Your task to perform on an android device: Go to network settings Image 0: 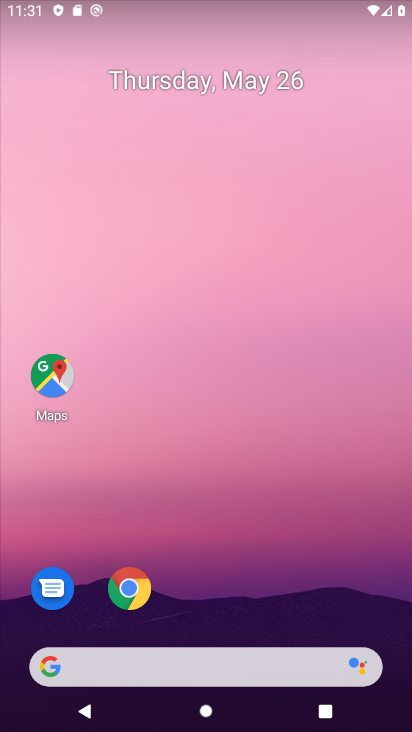
Step 0: drag from (197, 638) to (142, 14)
Your task to perform on an android device: Go to network settings Image 1: 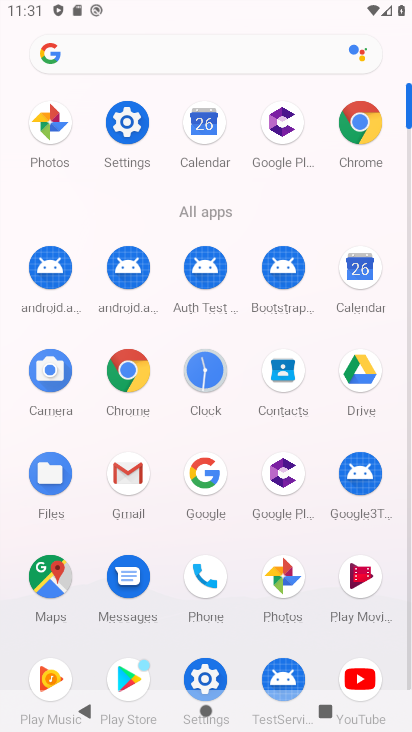
Step 1: click (212, 663)
Your task to perform on an android device: Go to network settings Image 2: 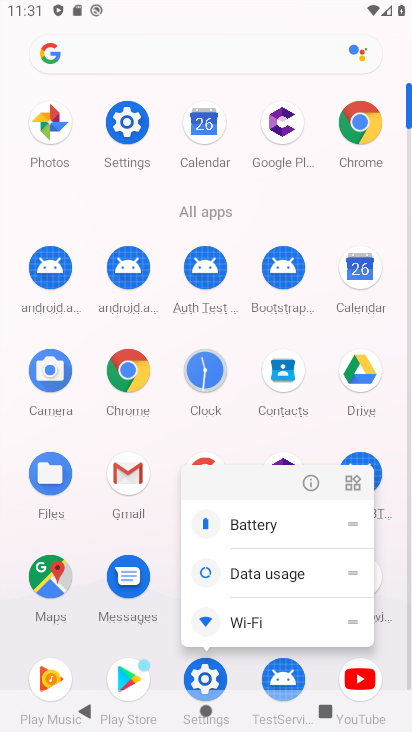
Step 2: click (206, 676)
Your task to perform on an android device: Go to network settings Image 3: 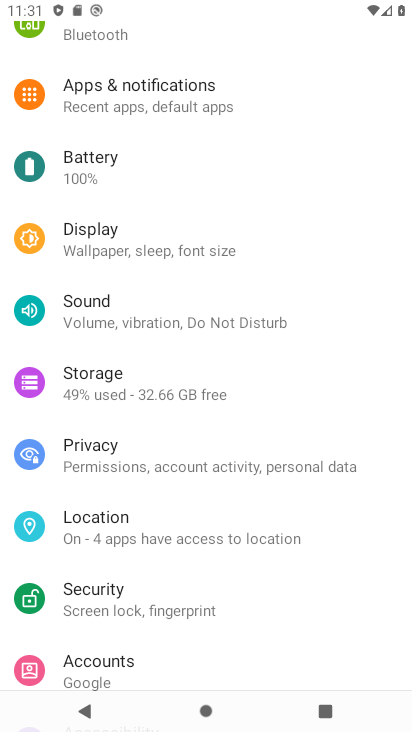
Step 3: drag from (114, 111) to (131, 720)
Your task to perform on an android device: Go to network settings Image 4: 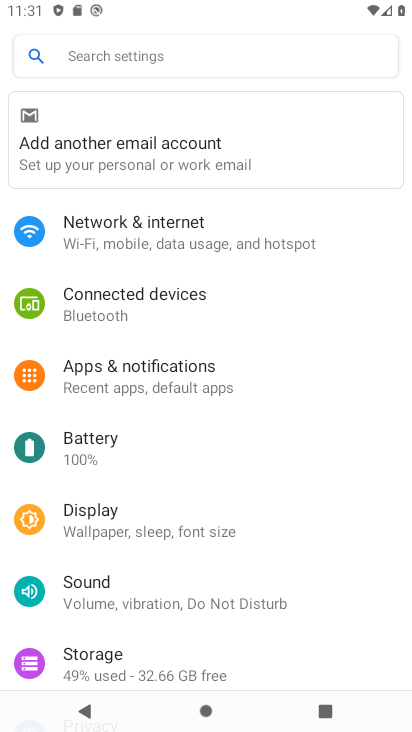
Step 4: click (151, 227)
Your task to perform on an android device: Go to network settings Image 5: 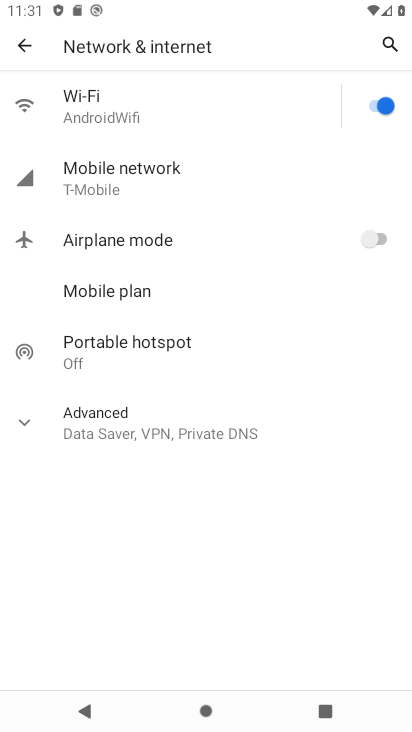
Step 5: click (124, 175)
Your task to perform on an android device: Go to network settings Image 6: 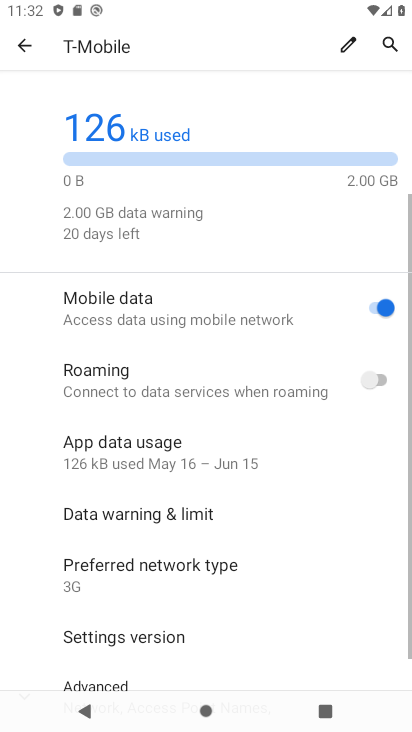
Step 6: task complete